Your task to perform on an android device: clear all cookies in the chrome app Image 0: 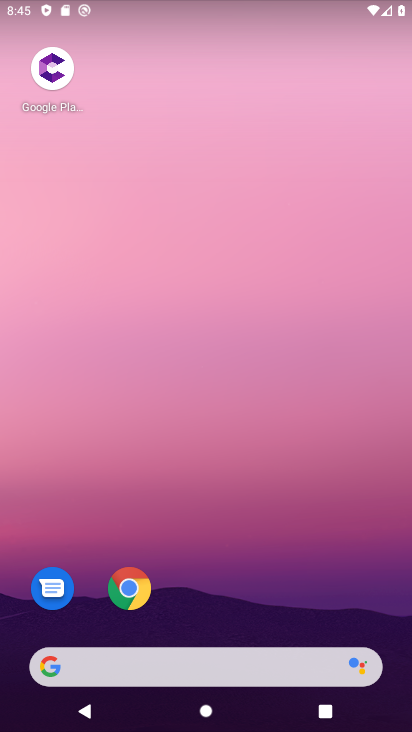
Step 0: click (132, 597)
Your task to perform on an android device: clear all cookies in the chrome app Image 1: 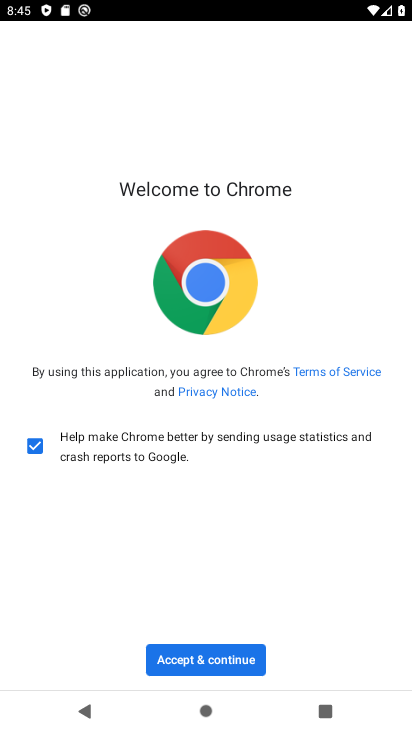
Step 1: click (182, 665)
Your task to perform on an android device: clear all cookies in the chrome app Image 2: 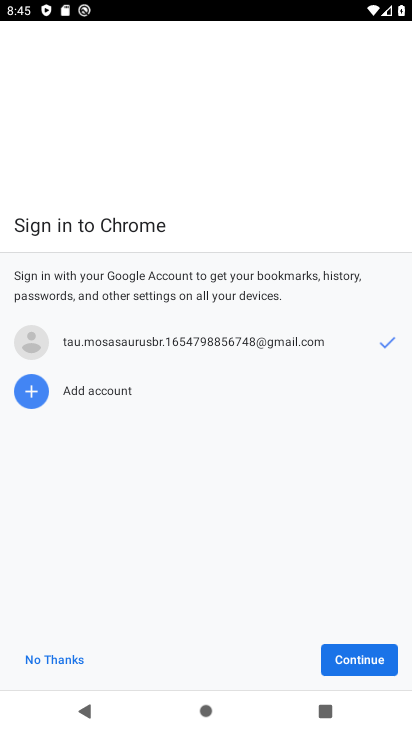
Step 2: click (345, 671)
Your task to perform on an android device: clear all cookies in the chrome app Image 3: 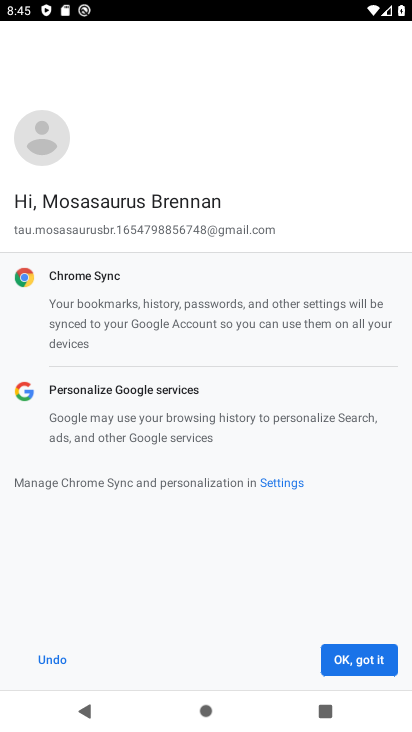
Step 3: click (345, 670)
Your task to perform on an android device: clear all cookies in the chrome app Image 4: 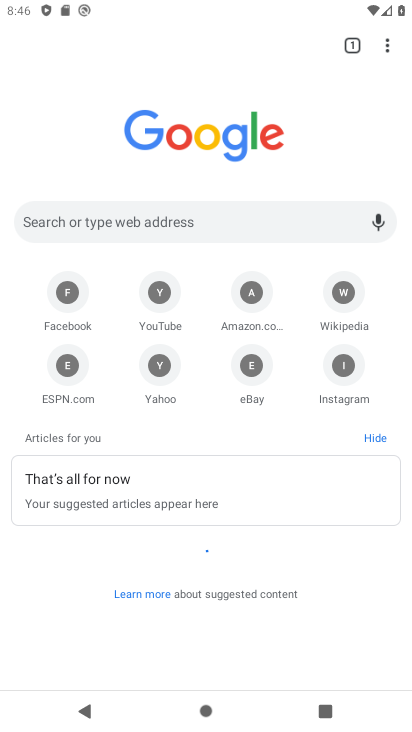
Step 4: click (391, 53)
Your task to perform on an android device: clear all cookies in the chrome app Image 5: 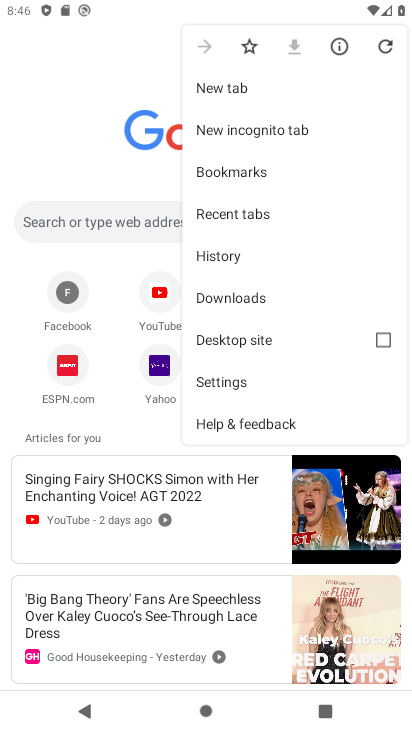
Step 5: click (248, 252)
Your task to perform on an android device: clear all cookies in the chrome app Image 6: 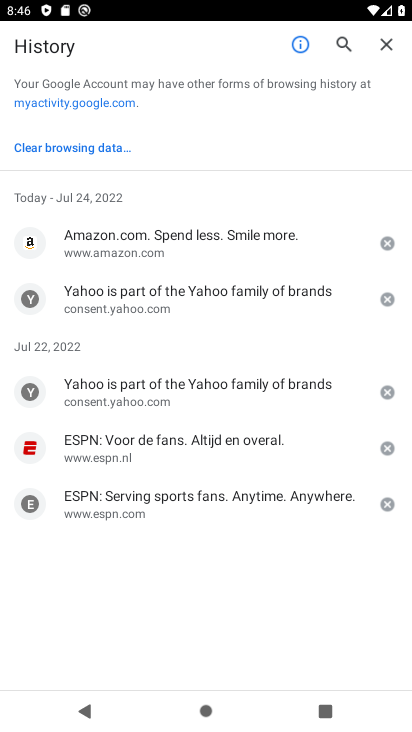
Step 6: click (104, 146)
Your task to perform on an android device: clear all cookies in the chrome app Image 7: 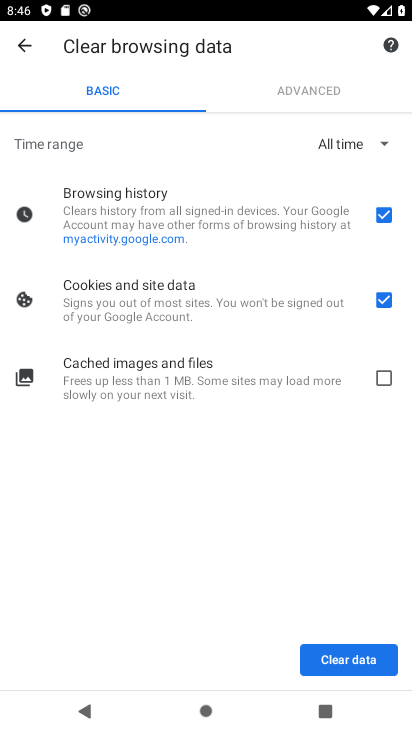
Step 7: click (394, 218)
Your task to perform on an android device: clear all cookies in the chrome app Image 8: 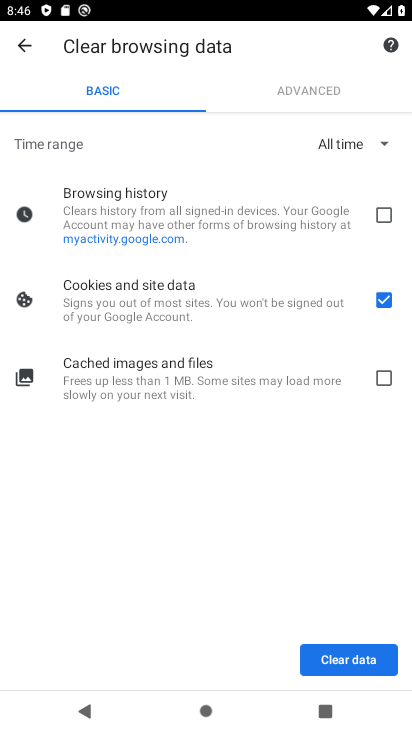
Step 8: click (342, 659)
Your task to perform on an android device: clear all cookies in the chrome app Image 9: 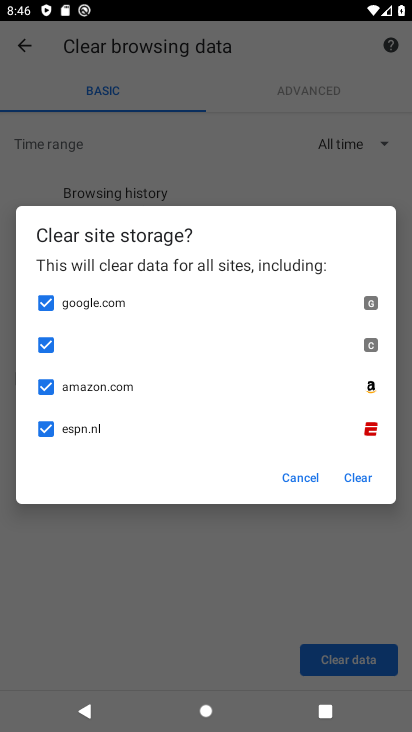
Step 9: click (369, 488)
Your task to perform on an android device: clear all cookies in the chrome app Image 10: 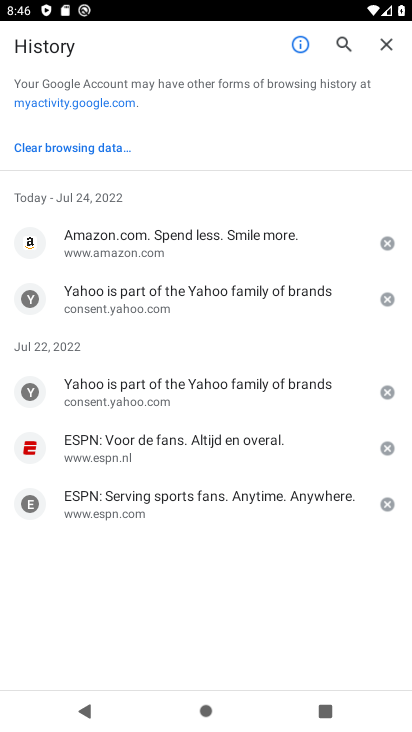
Step 10: task complete